Your task to perform on an android device: Open Chrome and go to settings Image 0: 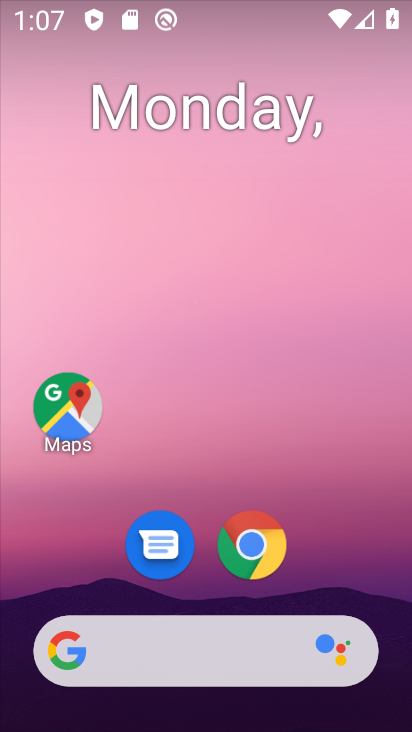
Step 0: click (252, 547)
Your task to perform on an android device: Open Chrome and go to settings Image 1: 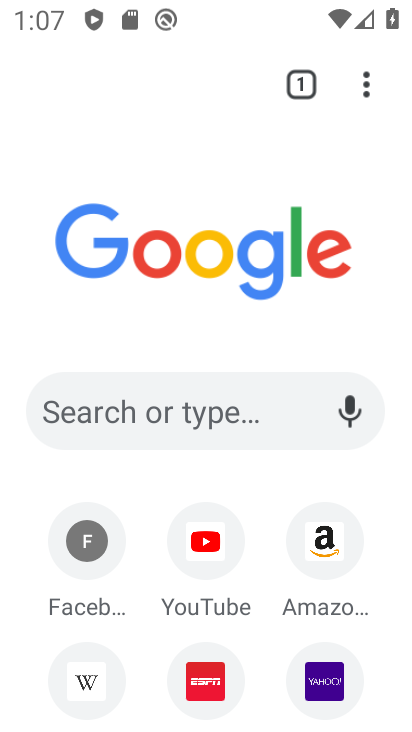
Step 1: click (363, 93)
Your task to perform on an android device: Open Chrome and go to settings Image 2: 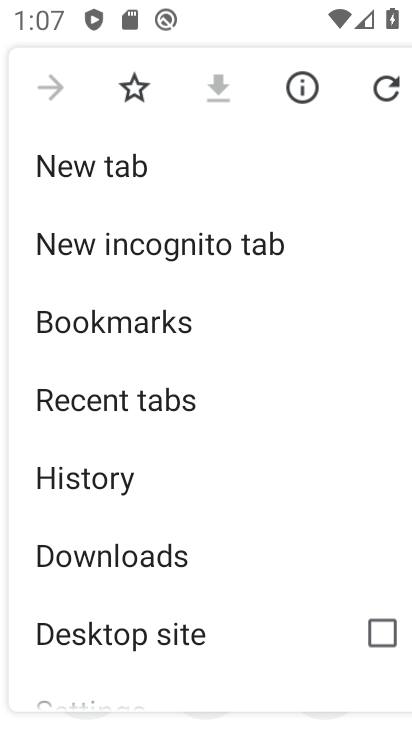
Step 2: drag from (164, 665) to (136, 244)
Your task to perform on an android device: Open Chrome and go to settings Image 3: 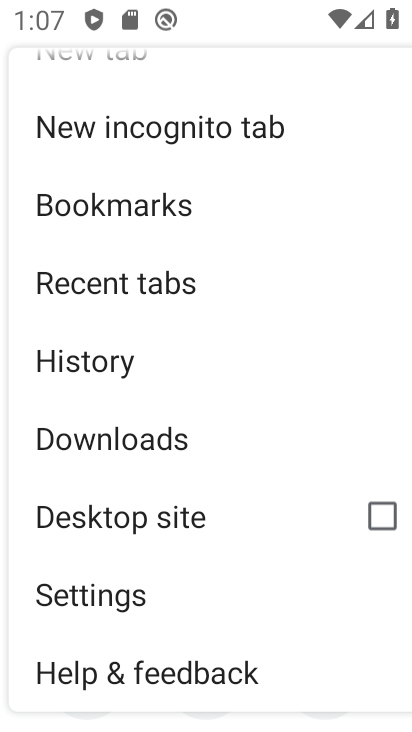
Step 3: click (93, 587)
Your task to perform on an android device: Open Chrome and go to settings Image 4: 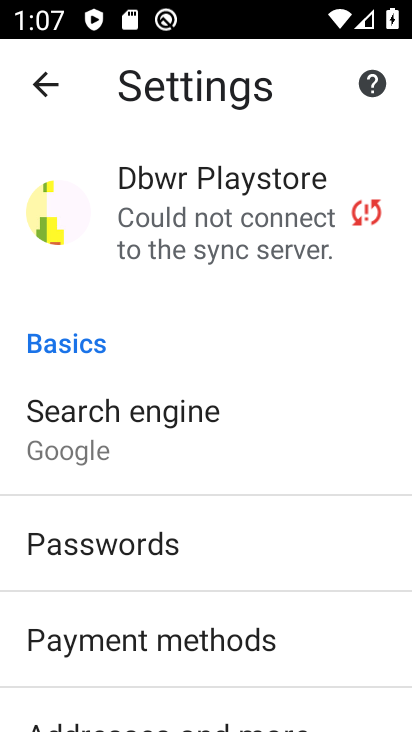
Step 4: task complete